Your task to perform on an android device: toggle wifi Image 0: 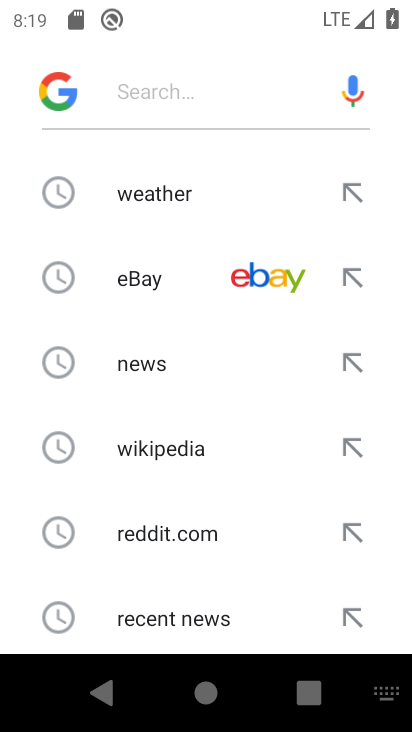
Step 0: press home button
Your task to perform on an android device: toggle wifi Image 1: 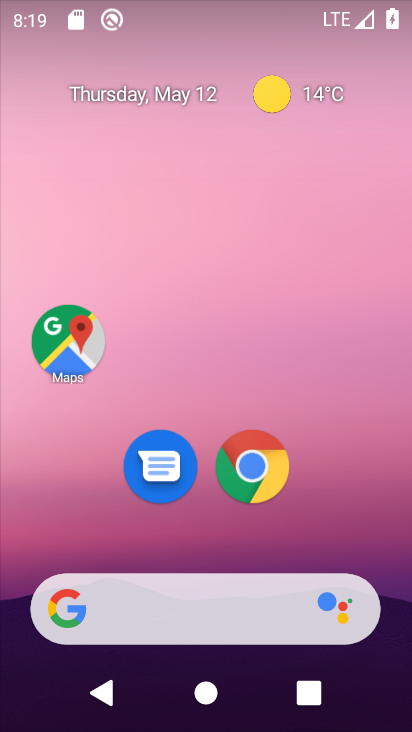
Step 1: drag from (203, 12) to (220, 563)
Your task to perform on an android device: toggle wifi Image 2: 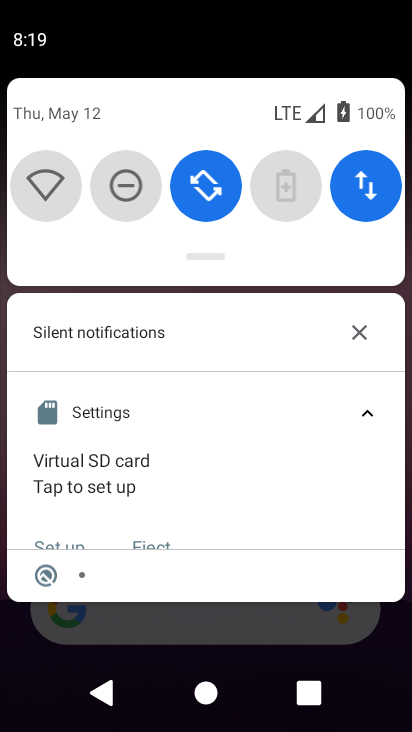
Step 2: click (46, 185)
Your task to perform on an android device: toggle wifi Image 3: 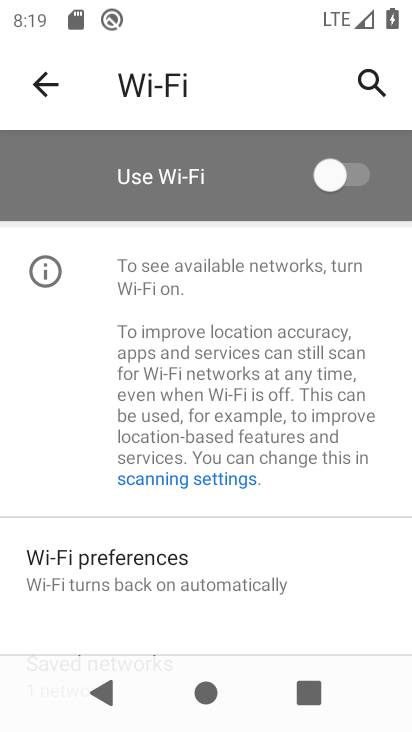
Step 3: click (349, 171)
Your task to perform on an android device: toggle wifi Image 4: 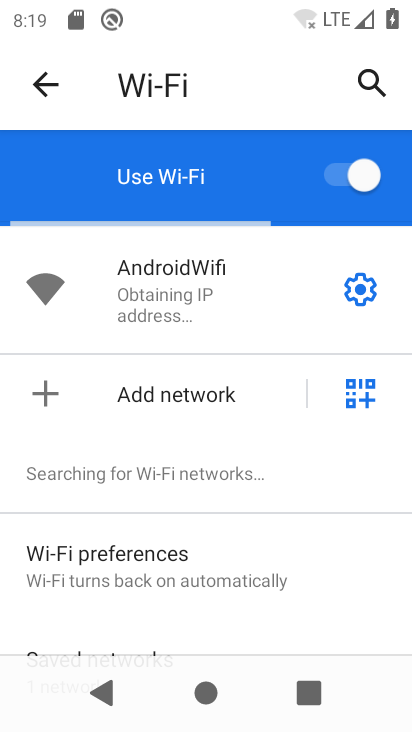
Step 4: task complete